Your task to perform on an android device: turn off priority inbox in the gmail app Image 0: 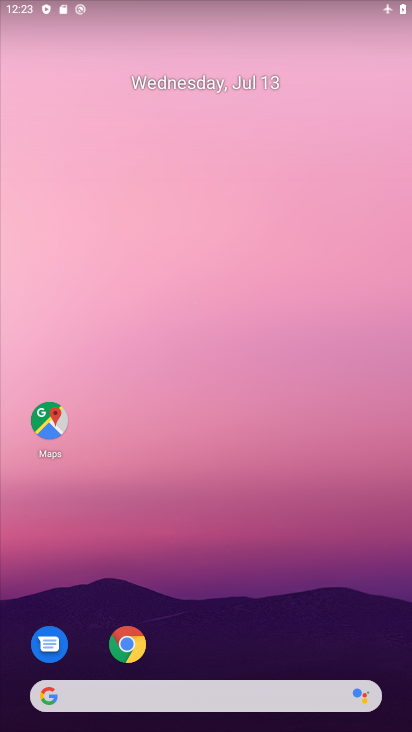
Step 0: drag from (233, 628) to (219, 177)
Your task to perform on an android device: turn off priority inbox in the gmail app Image 1: 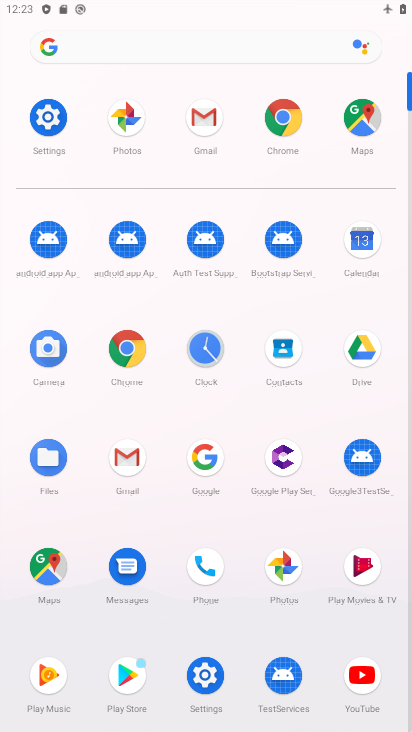
Step 1: click (127, 348)
Your task to perform on an android device: turn off priority inbox in the gmail app Image 2: 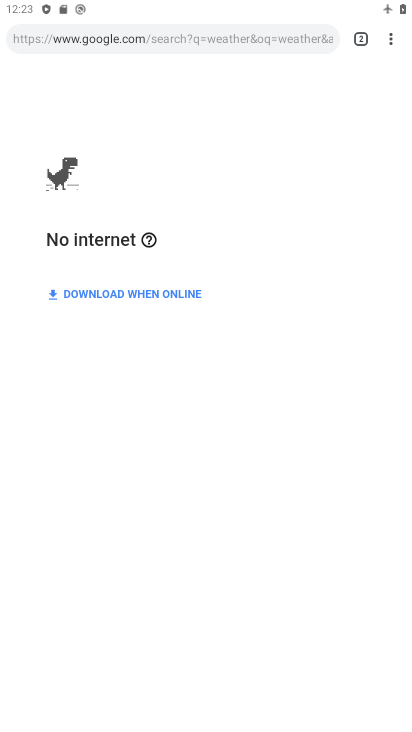
Step 2: press home button
Your task to perform on an android device: turn off priority inbox in the gmail app Image 3: 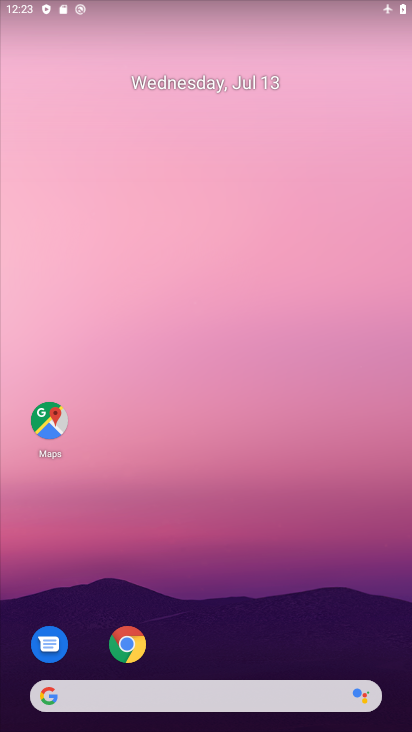
Step 3: drag from (283, 600) to (272, 118)
Your task to perform on an android device: turn off priority inbox in the gmail app Image 4: 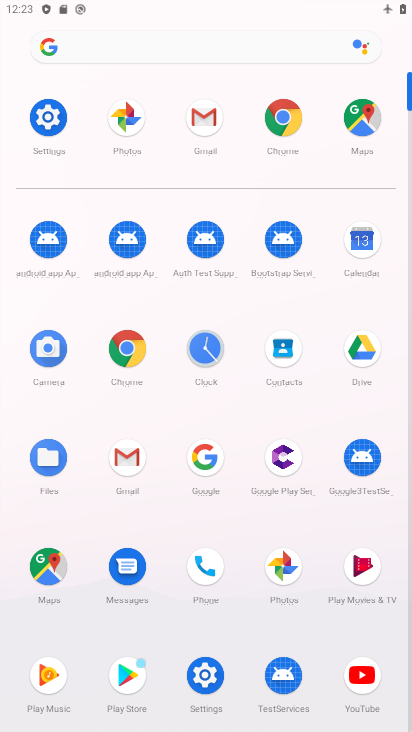
Step 4: click (208, 111)
Your task to perform on an android device: turn off priority inbox in the gmail app Image 5: 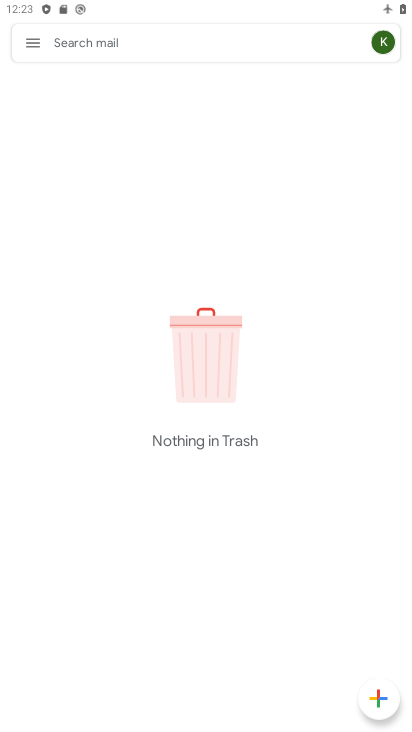
Step 5: click (26, 37)
Your task to perform on an android device: turn off priority inbox in the gmail app Image 6: 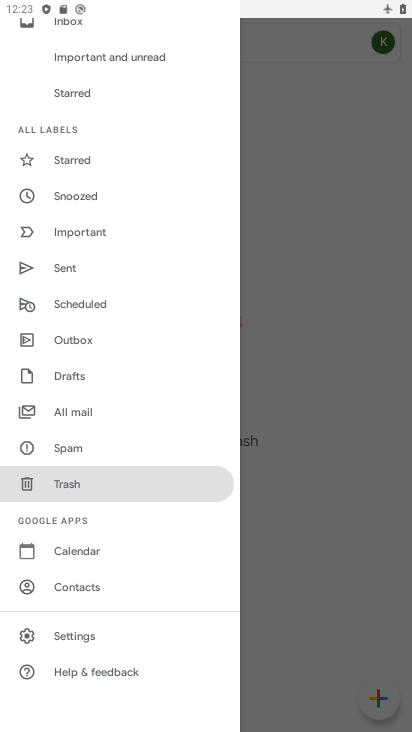
Step 6: click (72, 636)
Your task to perform on an android device: turn off priority inbox in the gmail app Image 7: 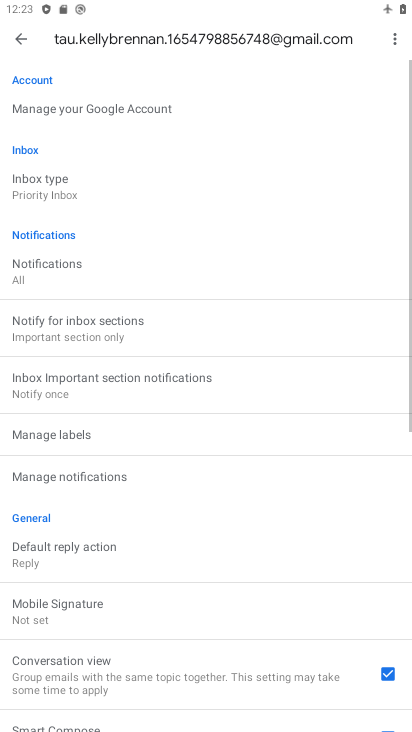
Step 7: click (117, 189)
Your task to perform on an android device: turn off priority inbox in the gmail app Image 8: 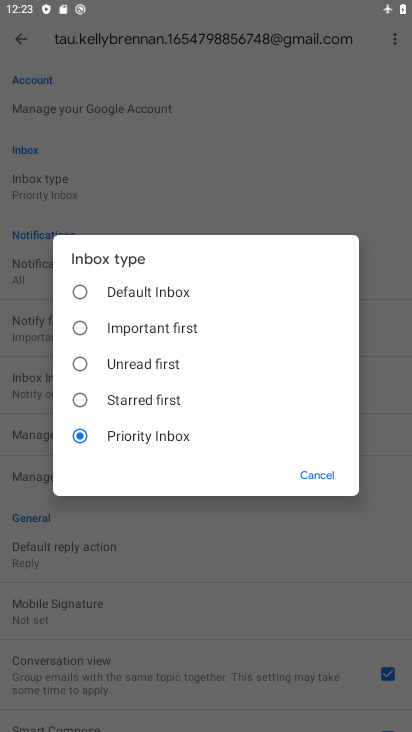
Step 8: task complete